Your task to perform on an android device: change the clock display to analog Image 0: 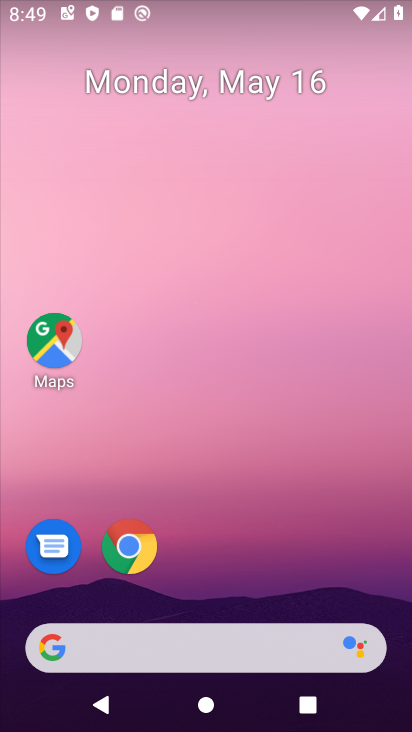
Step 0: drag from (290, 355) to (333, 235)
Your task to perform on an android device: change the clock display to analog Image 1: 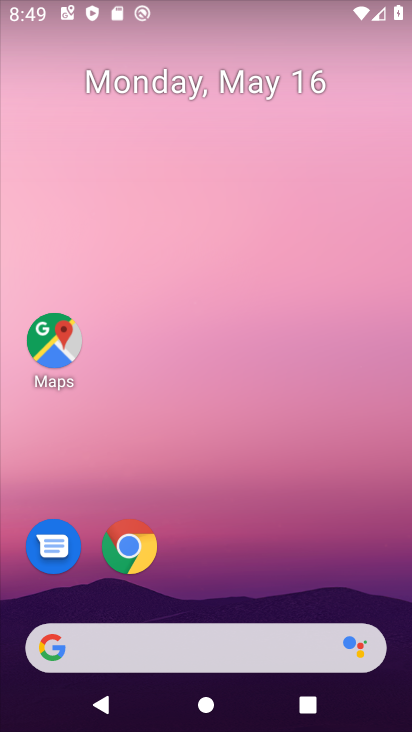
Step 1: drag from (265, 678) to (346, 260)
Your task to perform on an android device: change the clock display to analog Image 2: 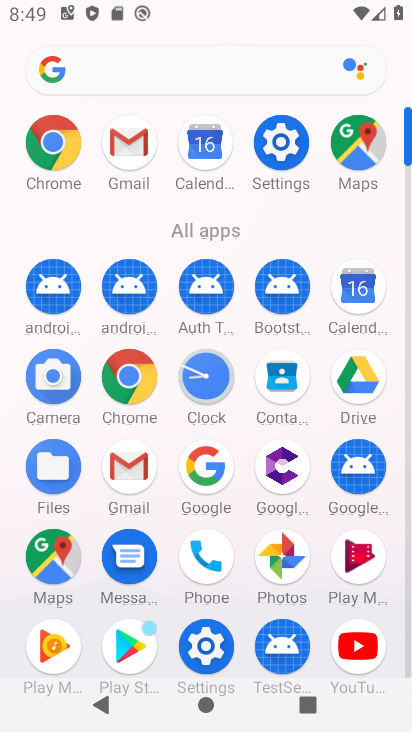
Step 2: click (191, 374)
Your task to perform on an android device: change the clock display to analog Image 3: 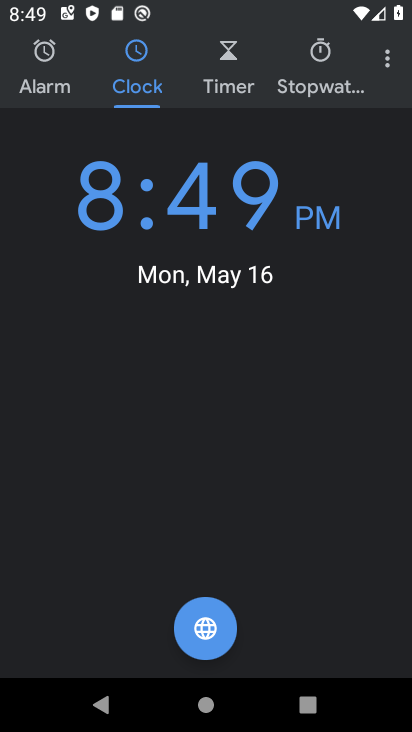
Step 3: click (384, 88)
Your task to perform on an android device: change the clock display to analog Image 4: 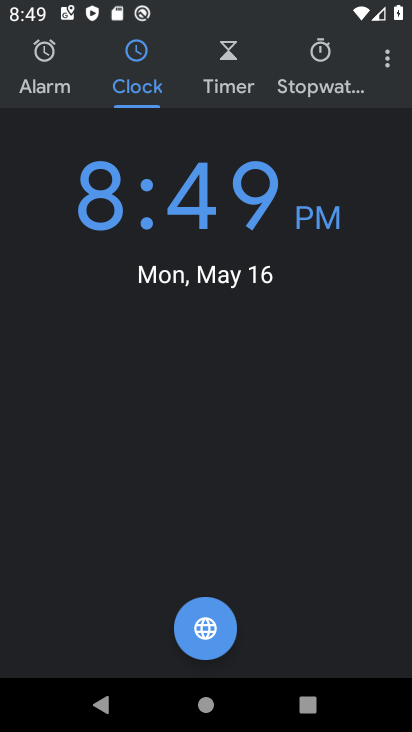
Step 4: click (392, 76)
Your task to perform on an android device: change the clock display to analog Image 5: 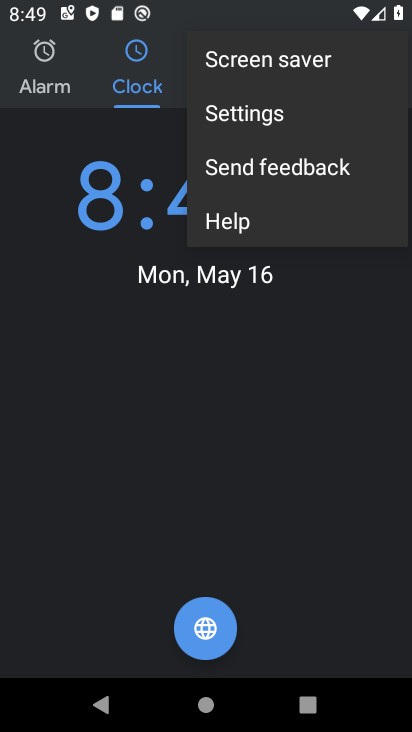
Step 5: click (273, 111)
Your task to perform on an android device: change the clock display to analog Image 6: 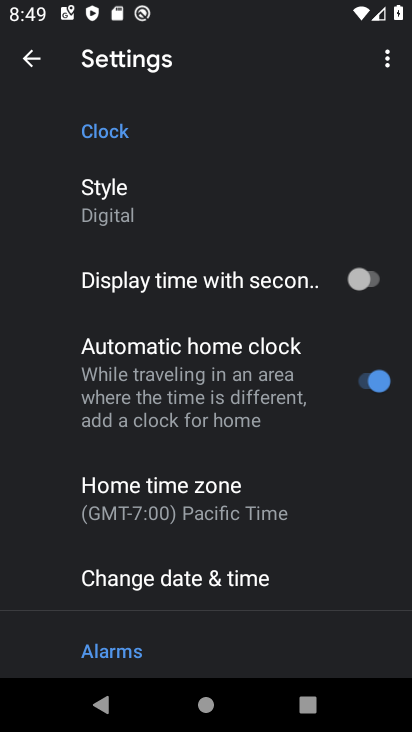
Step 6: click (138, 218)
Your task to perform on an android device: change the clock display to analog Image 7: 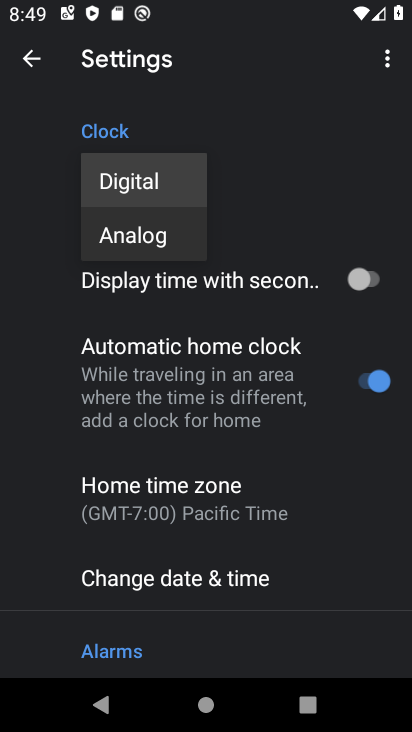
Step 7: click (144, 231)
Your task to perform on an android device: change the clock display to analog Image 8: 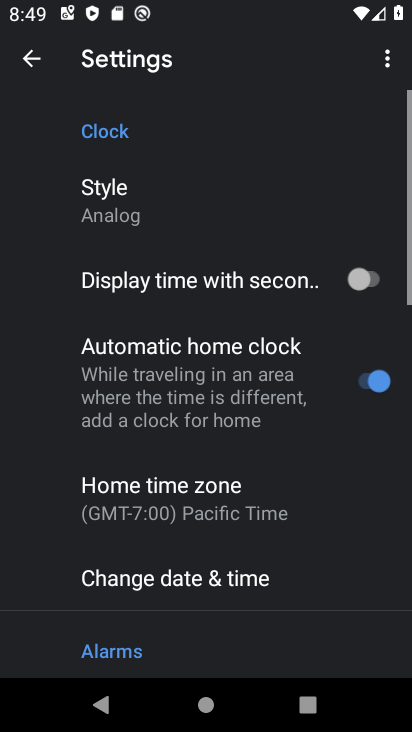
Step 8: task complete